Your task to perform on an android device: change notification settings in the gmail app Image 0: 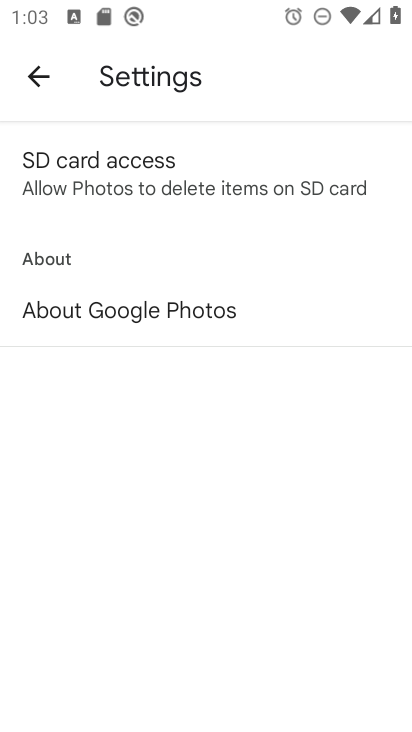
Step 0: press home button
Your task to perform on an android device: change notification settings in the gmail app Image 1: 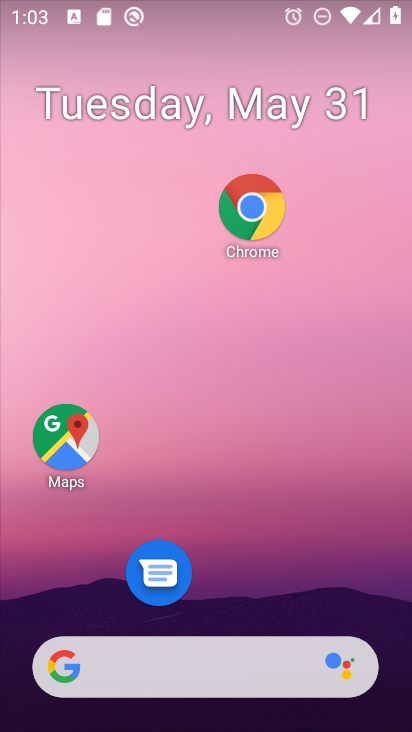
Step 1: drag from (262, 674) to (317, 83)
Your task to perform on an android device: change notification settings in the gmail app Image 2: 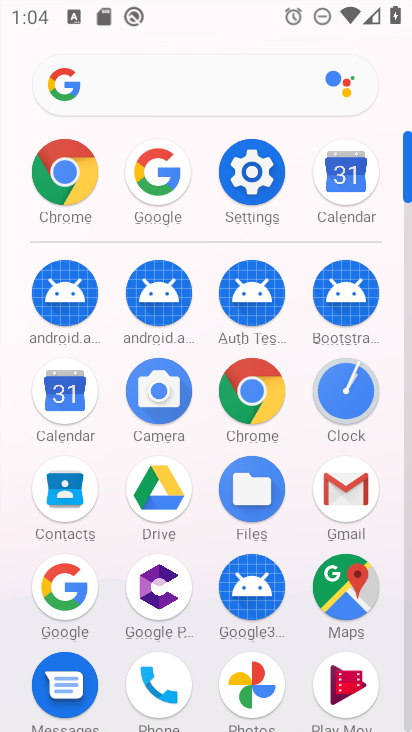
Step 2: click (363, 490)
Your task to perform on an android device: change notification settings in the gmail app Image 3: 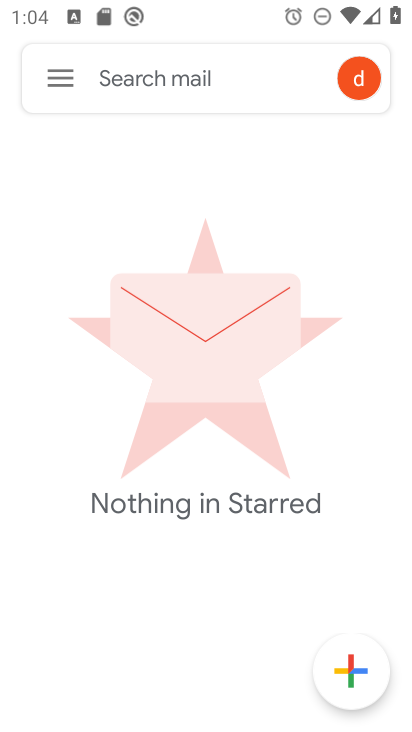
Step 3: click (55, 78)
Your task to perform on an android device: change notification settings in the gmail app Image 4: 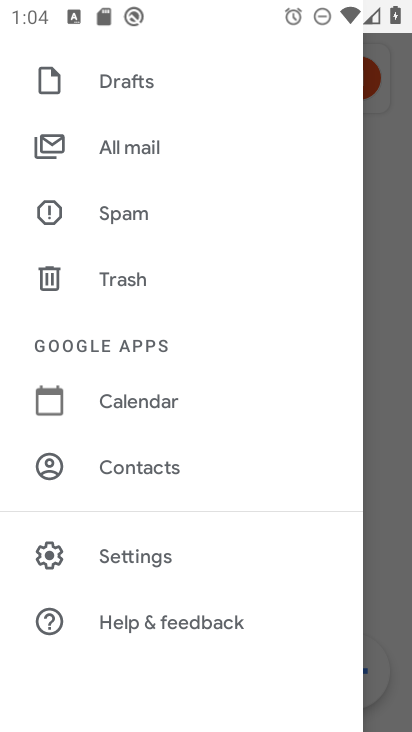
Step 4: click (106, 563)
Your task to perform on an android device: change notification settings in the gmail app Image 5: 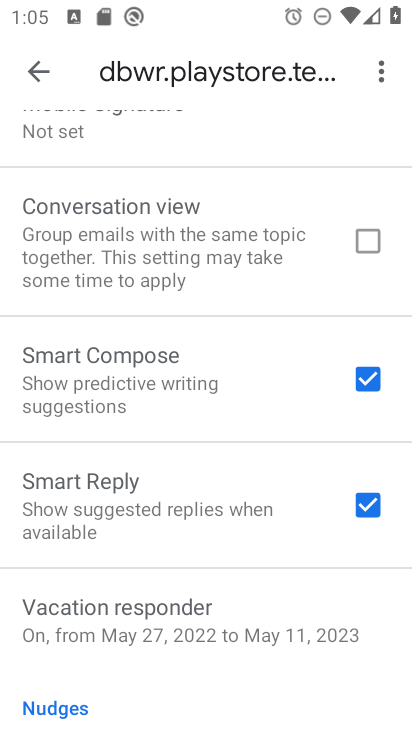
Step 5: click (29, 78)
Your task to perform on an android device: change notification settings in the gmail app Image 6: 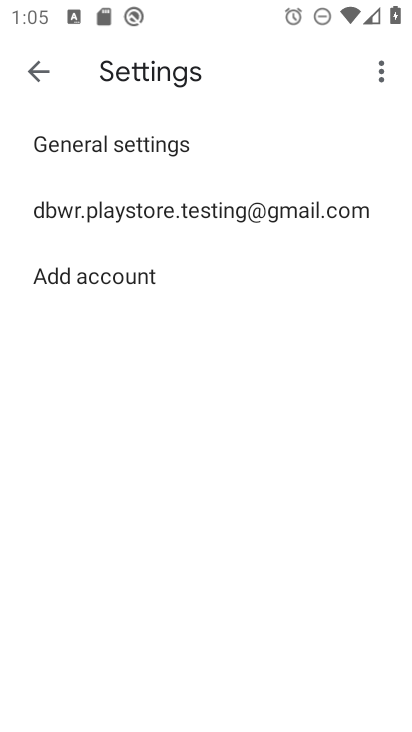
Step 6: click (182, 150)
Your task to perform on an android device: change notification settings in the gmail app Image 7: 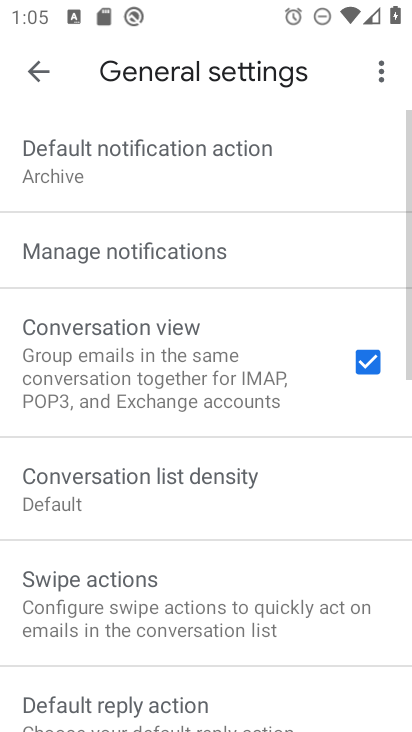
Step 7: click (168, 257)
Your task to perform on an android device: change notification settings in the gmail app Image 8: 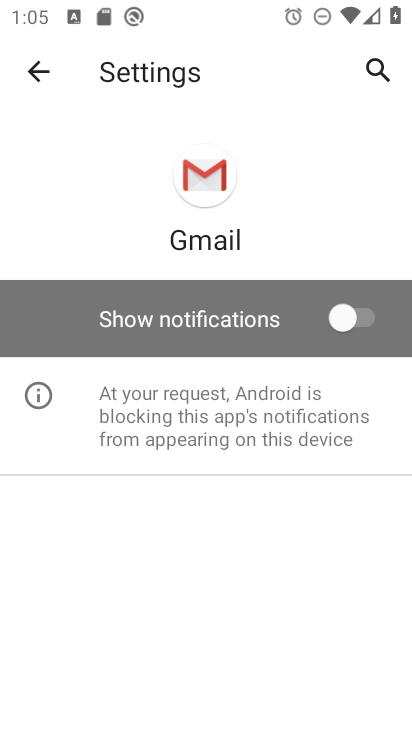
Step 8: click (356, 313)
Your task to perform on an android device: change notification settings in the gmail app Image 9: 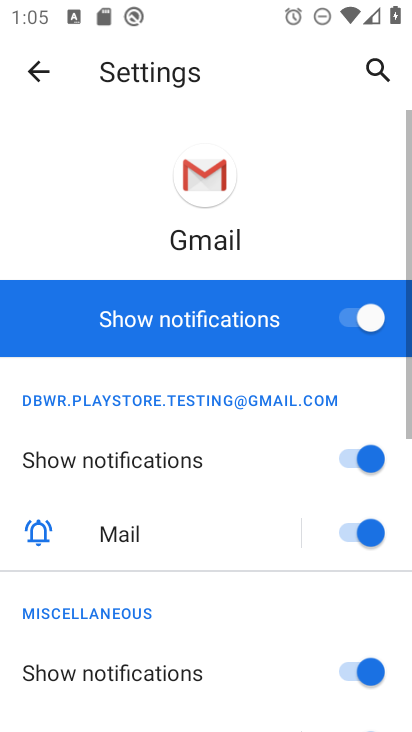
Step 9: task complete